Your task to perform on an android device: turn pop-ups off in chrome Image 0: 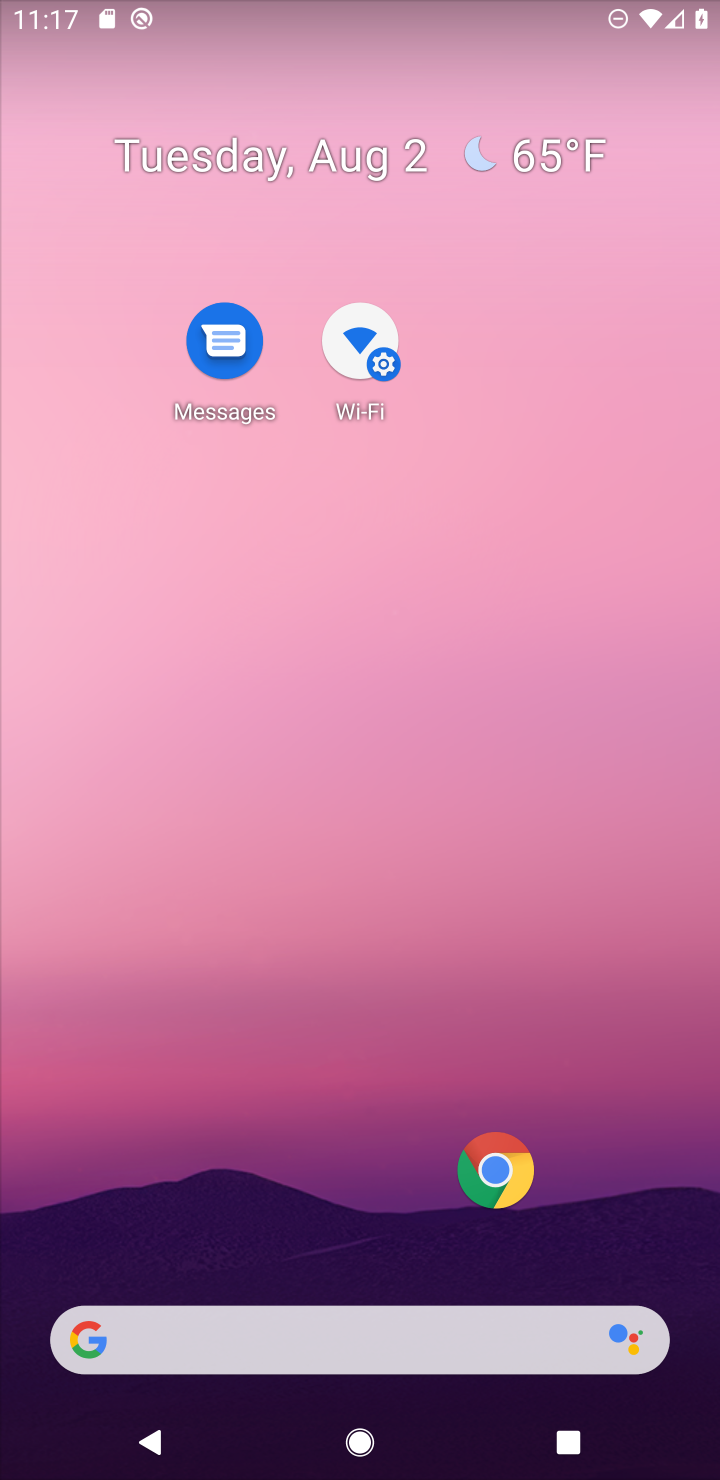
Step 0: drag from (363, 1217) to (441, 410)
Your task to perform on an android device: turn pop-ups off in chrome Image 1: 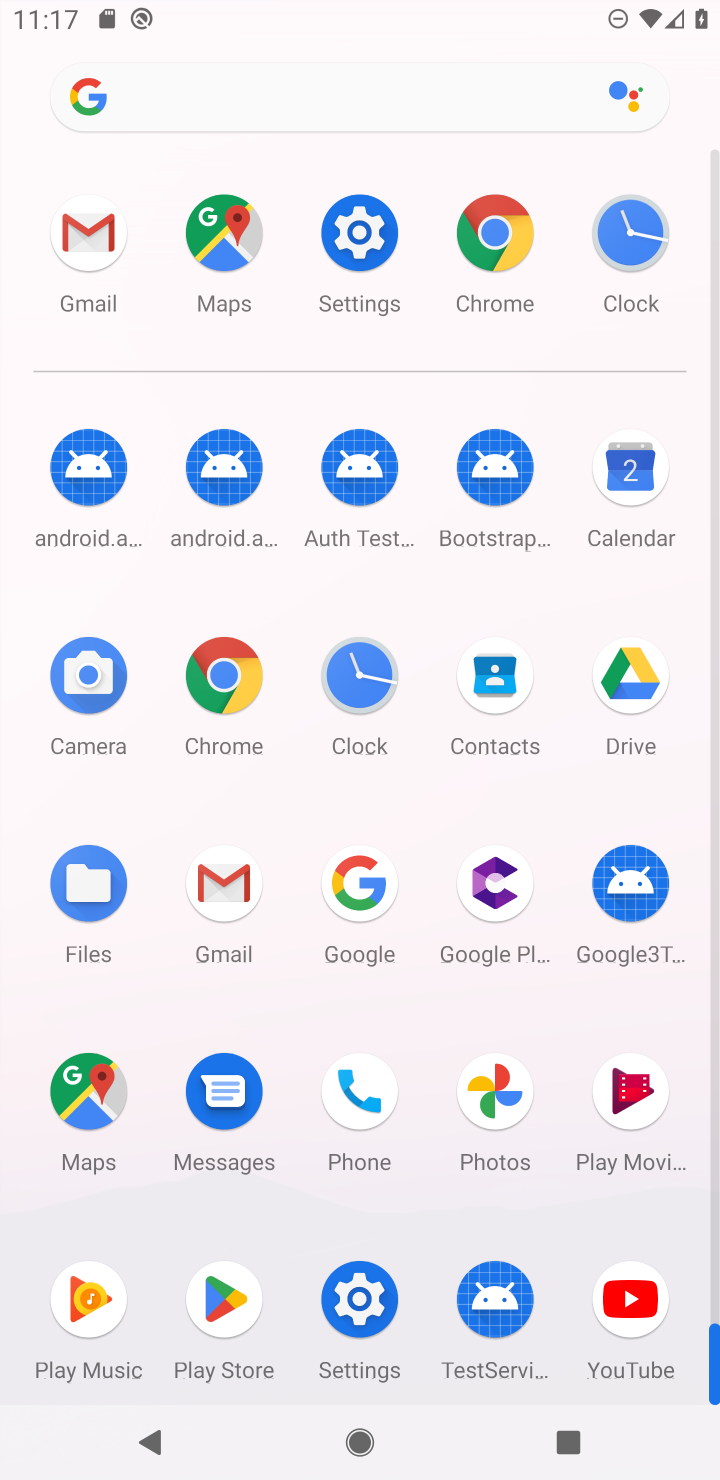
Step 1: click (207, 664)
Your task to perform on an android device: turn pop-ups off in chrome Image 2: 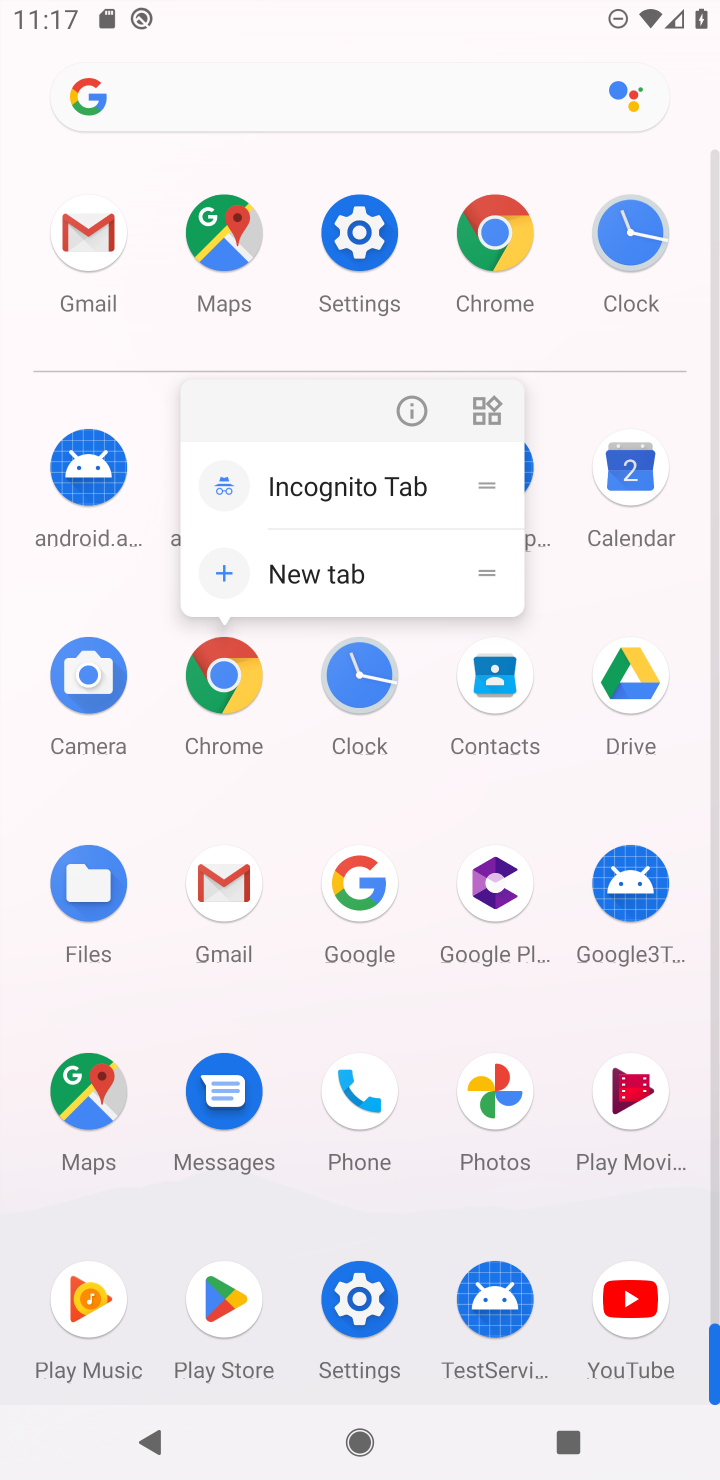
Step 2: click (413, 412)
Your task to perform on an android device: turn pop-ups off in chrome Image 3: 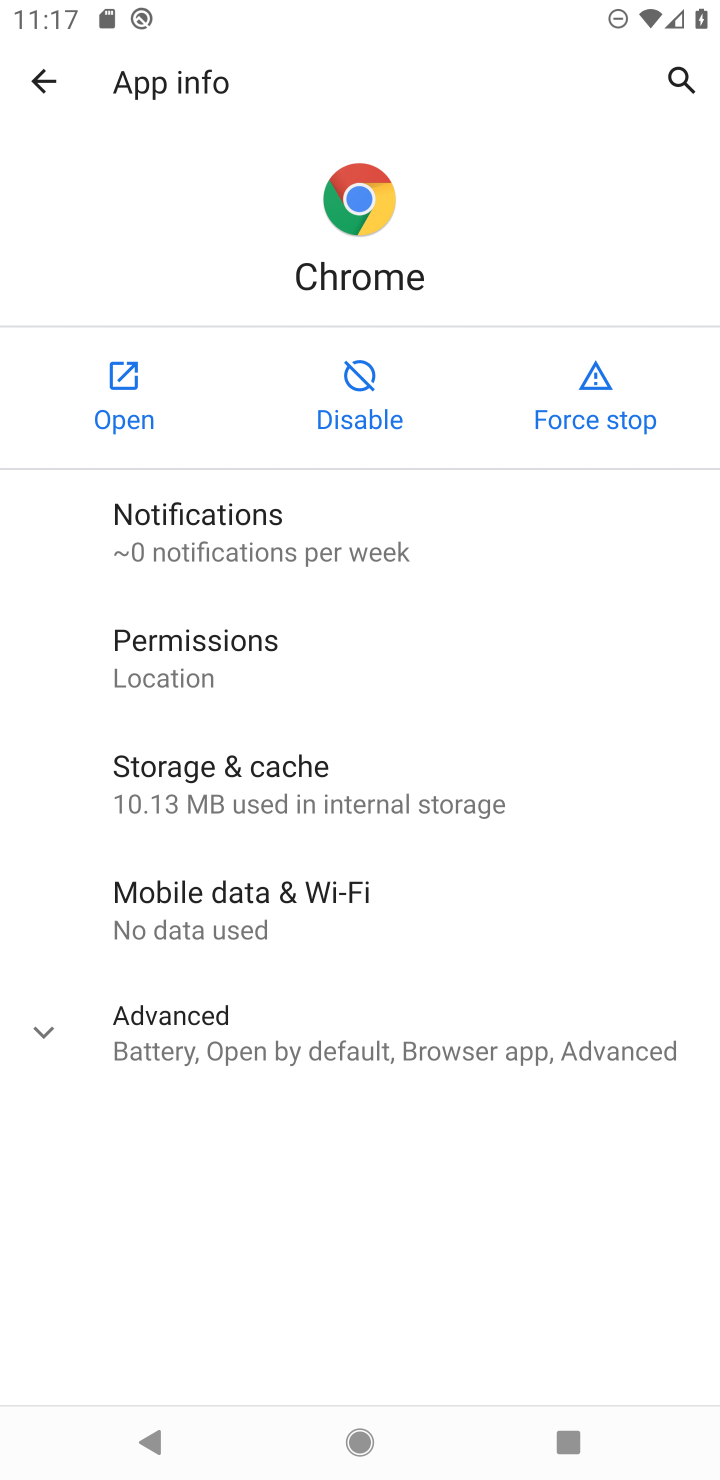
Step 3: click (132, 388)
Your task to perform on an android device: turn pop-ups off in chrome Image 4: 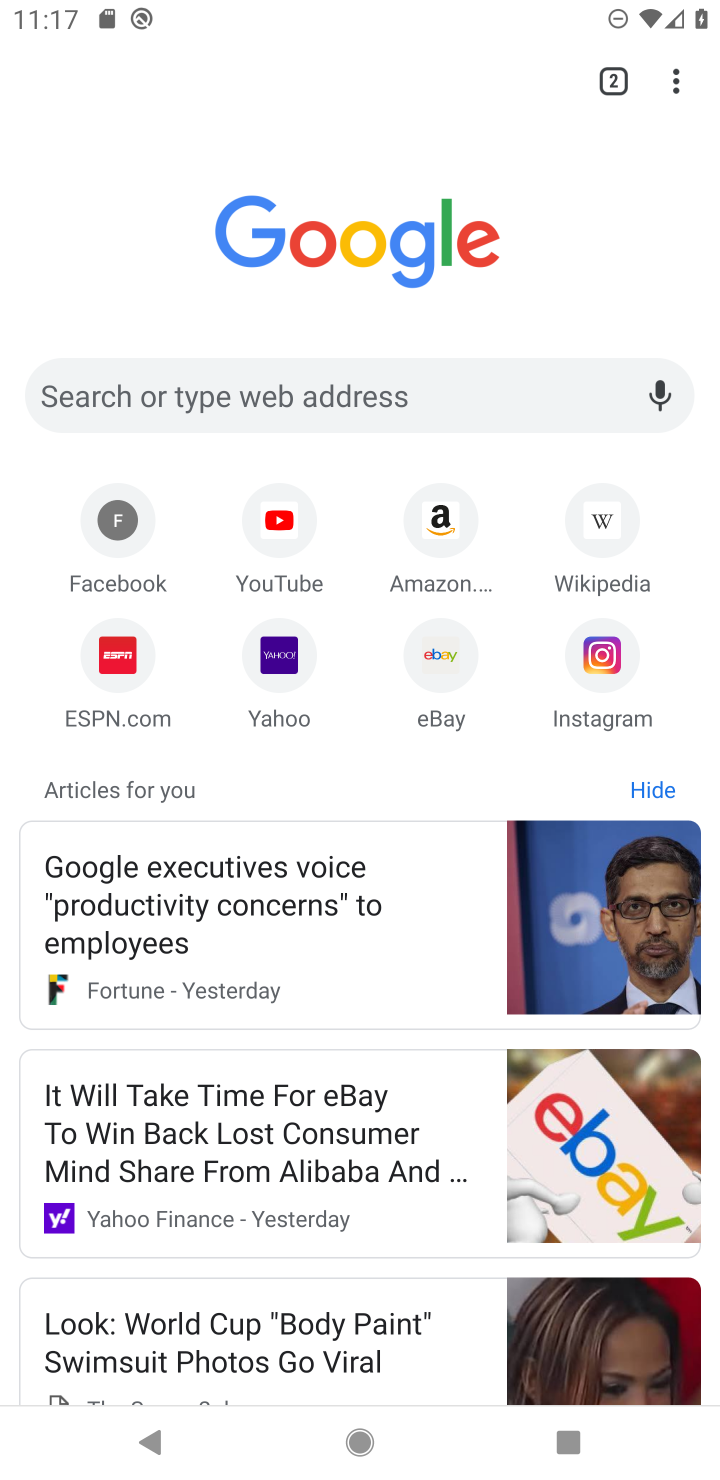
Step 4: drag from (687, 87) to (401, 766)
Your task to perform on an android device: turn pop-ups off in chrome Image 5: 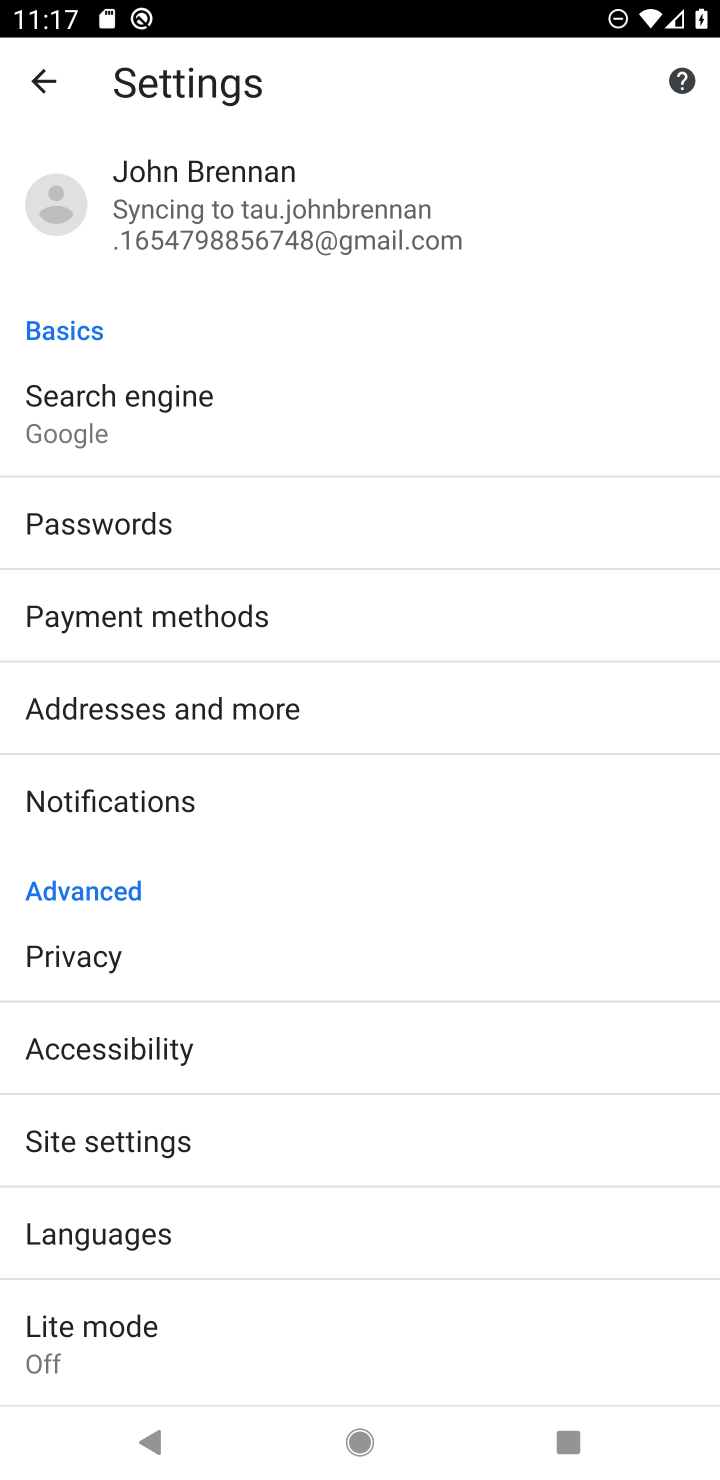
Step 5: drag from (359, 1209) to (362, 482)
Your task to perform on an android device: turn pop-ups off in chrome Image 6: 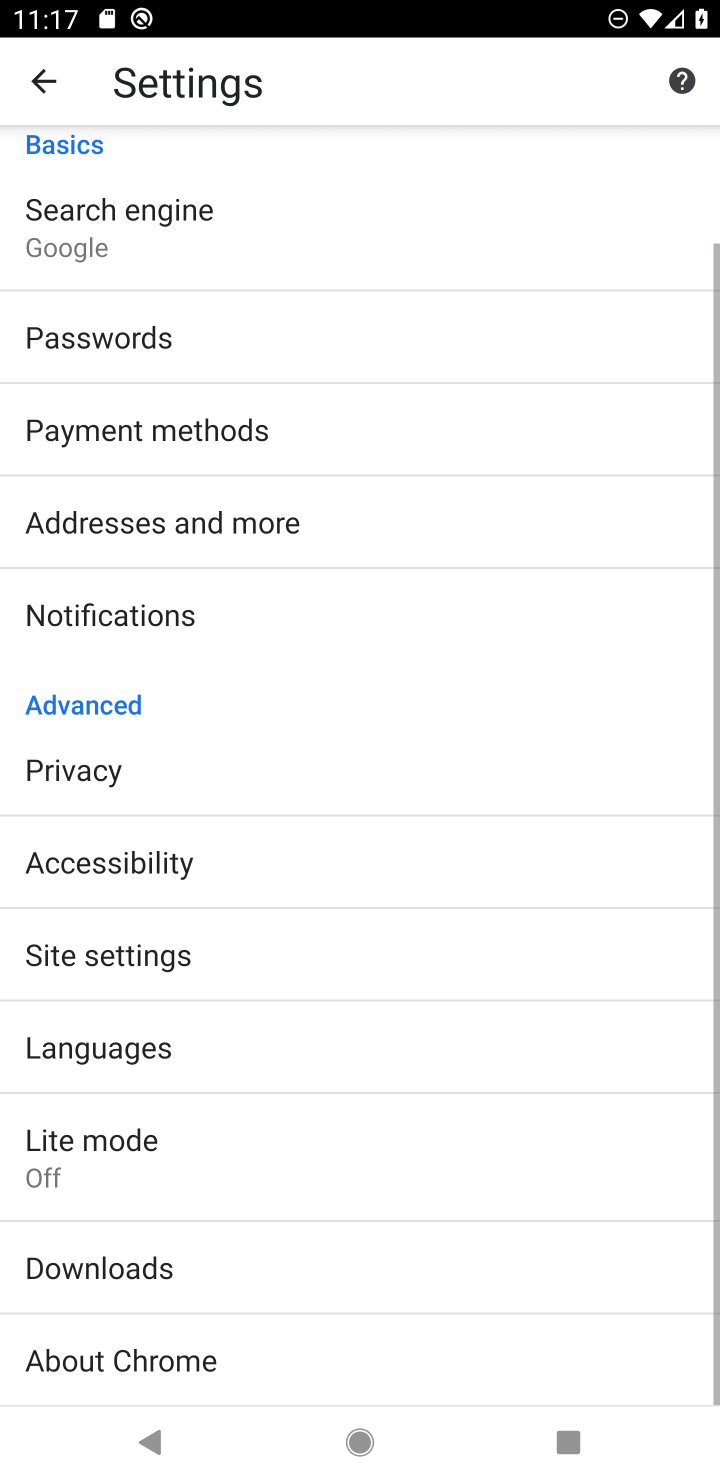
Step 6: drag from (467, 648) to (467, 975)
Your task to perform on an android device: turn pop-ups off in chrome Image 7: 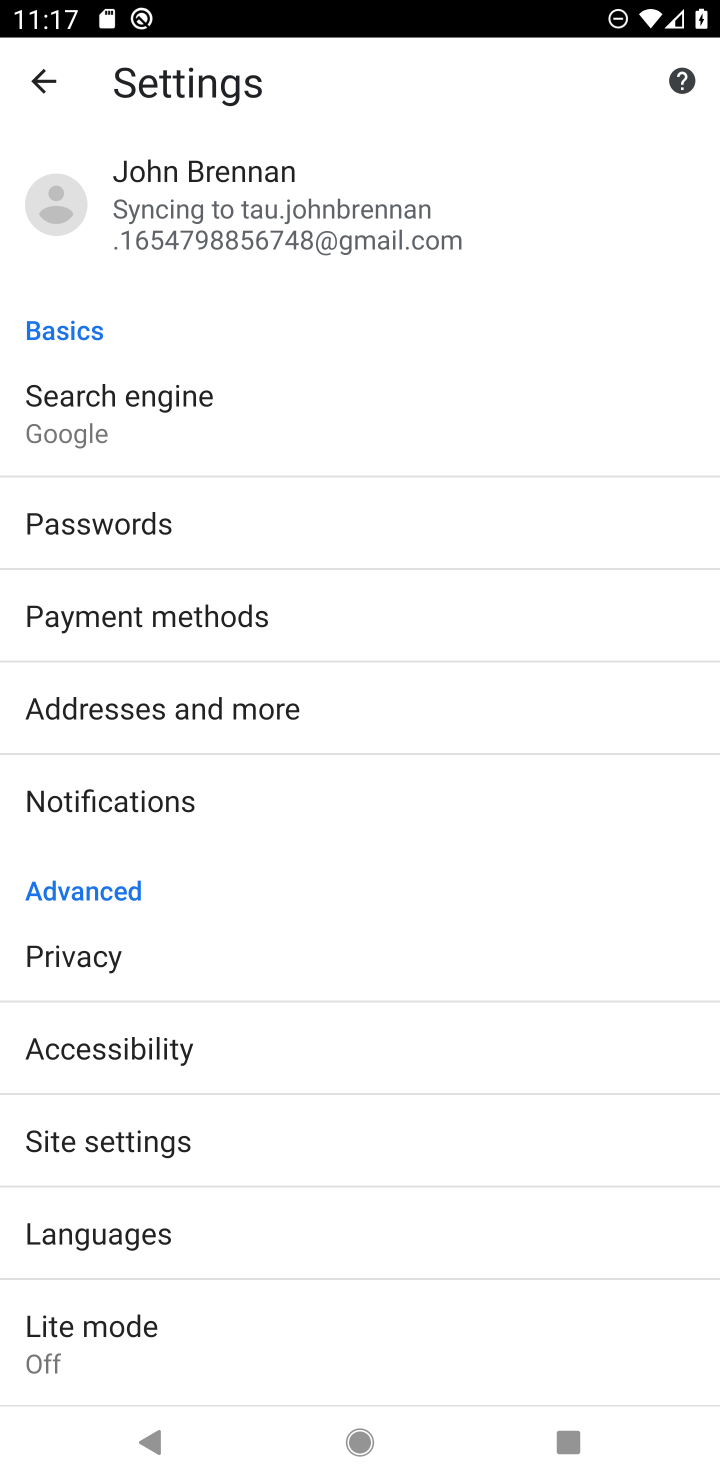
Step 7: drag from (237, 928) to (499, 240)
Your task to perform on an android device: turn pop-ups off in chrome Image 8: 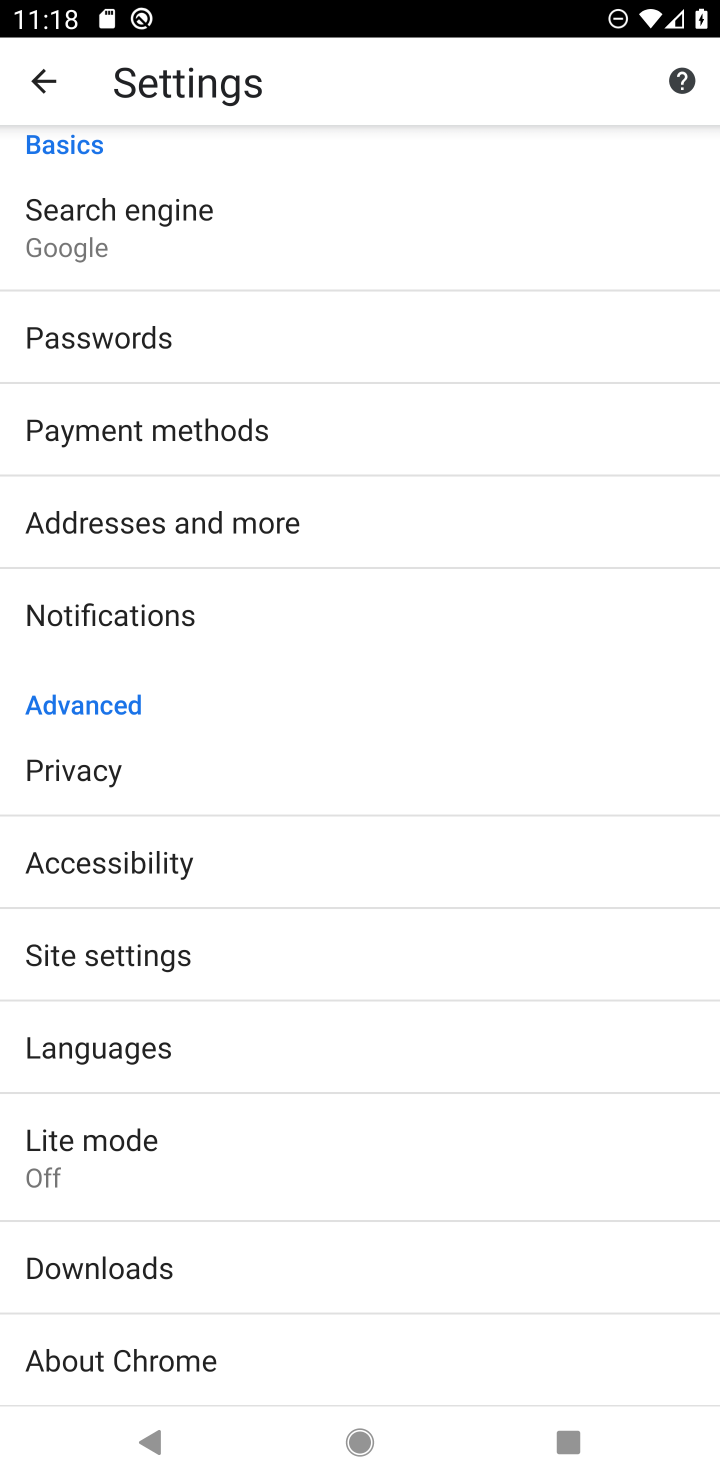
Step 8: drag from (413, 1122) to (542, 599)
Your task to perform on an android device: turn pop-ups off in chrome Image 9: 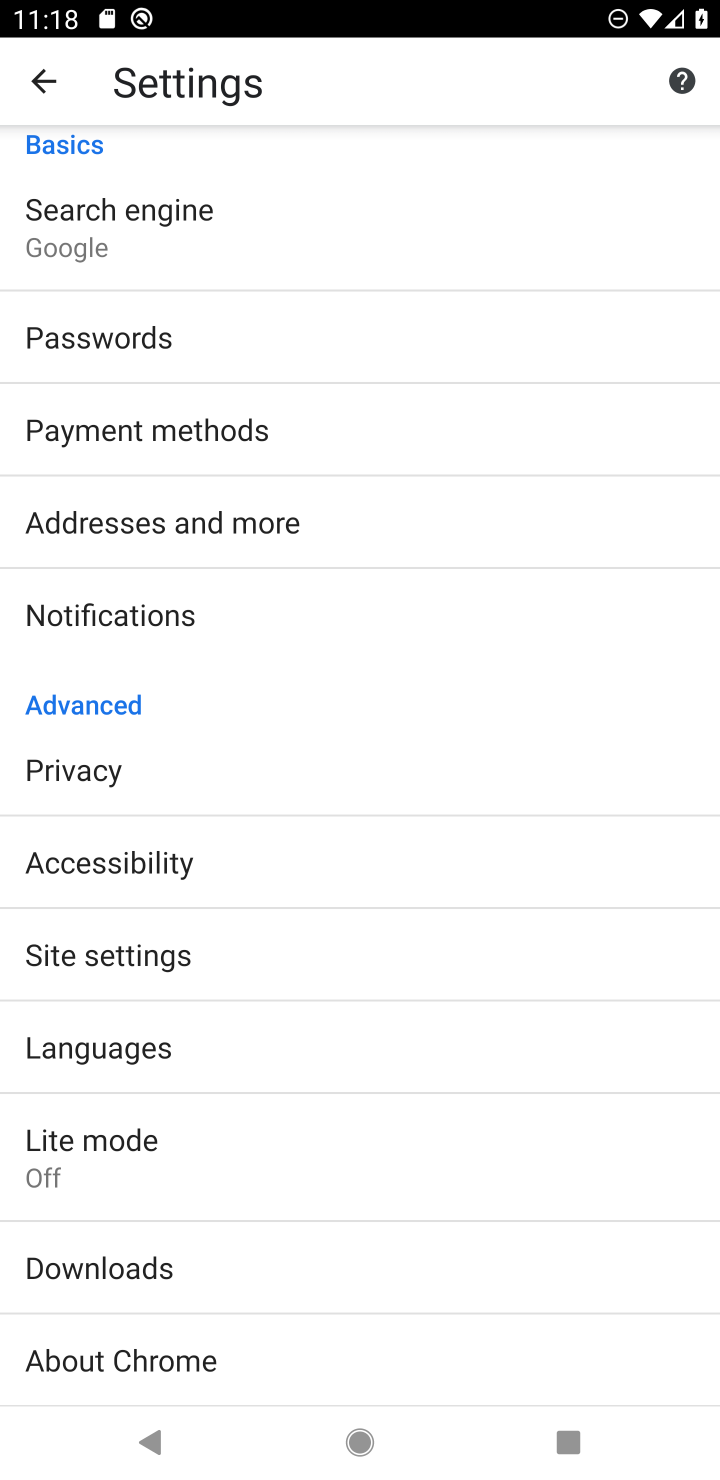
Step 9: drag from (282, 1138) to (484, 602)
Your task to perform on an android device: turn pop-ups off in chrome Image 10: 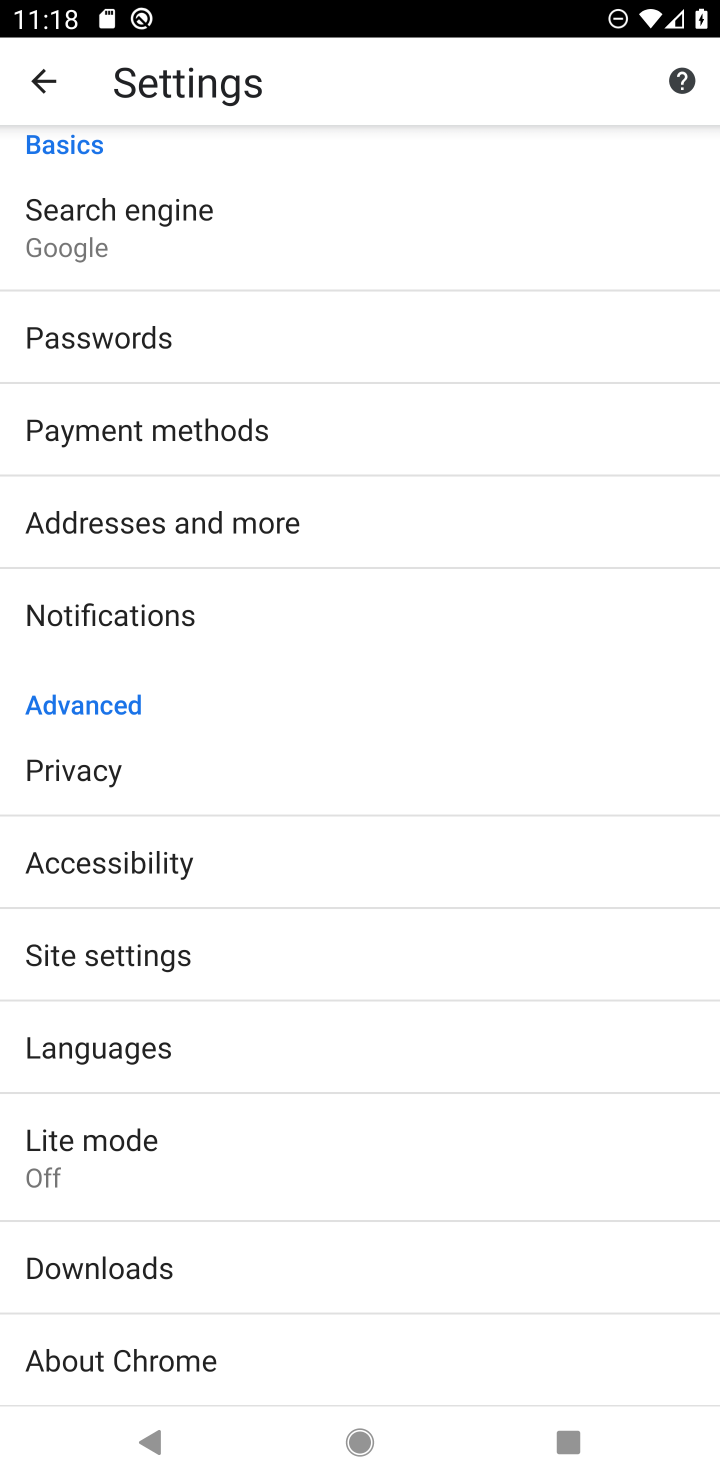
Step 10: click (165, 977)
Your task to perform on an android device: turn pop-ups off in chrome Image 11: 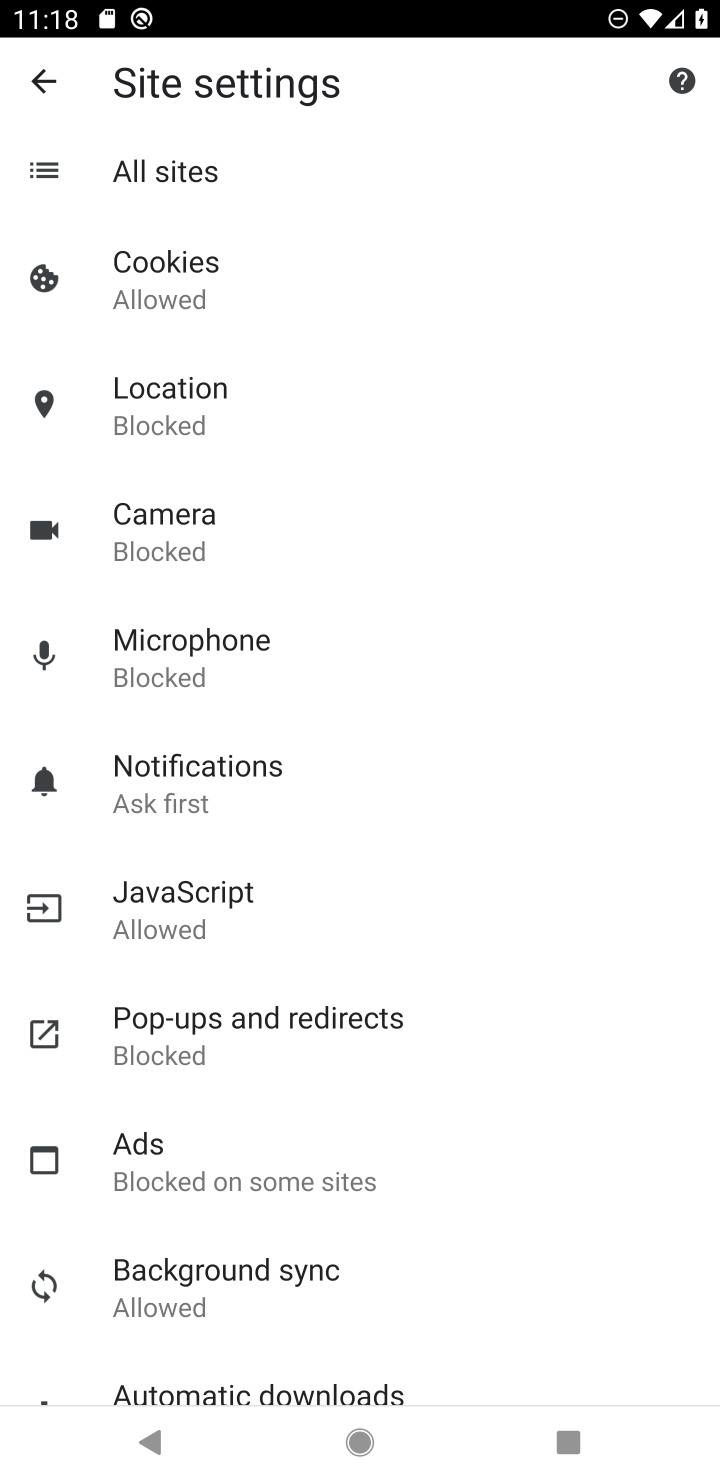
Step 11: drag from (380, 1056) to (552, 266)
Your task to perform on an android device: turn pop-ups off in chrome Image 12: 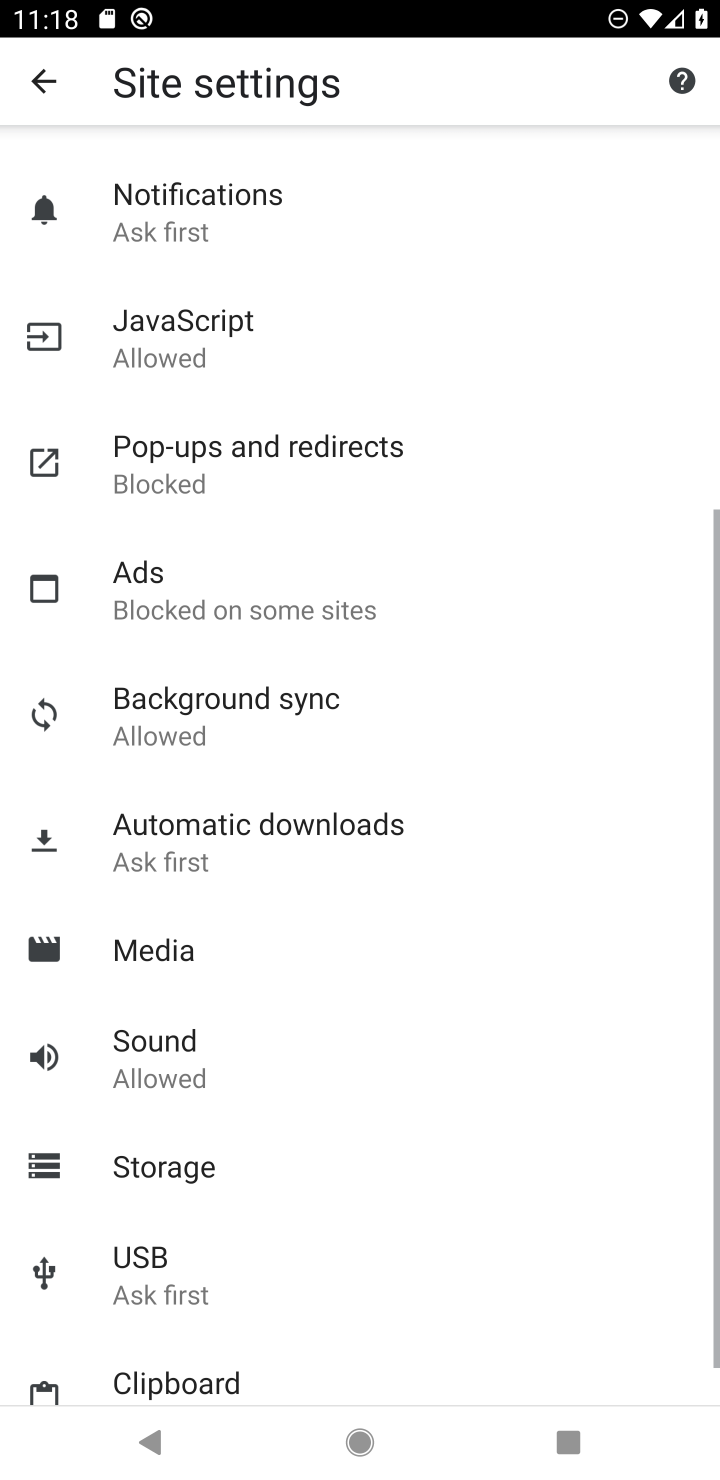
Step 12: drag from (488, 343) to (356, 1253)
Your task to perform on an android device: turn pop-ups off in chrome Image 13: 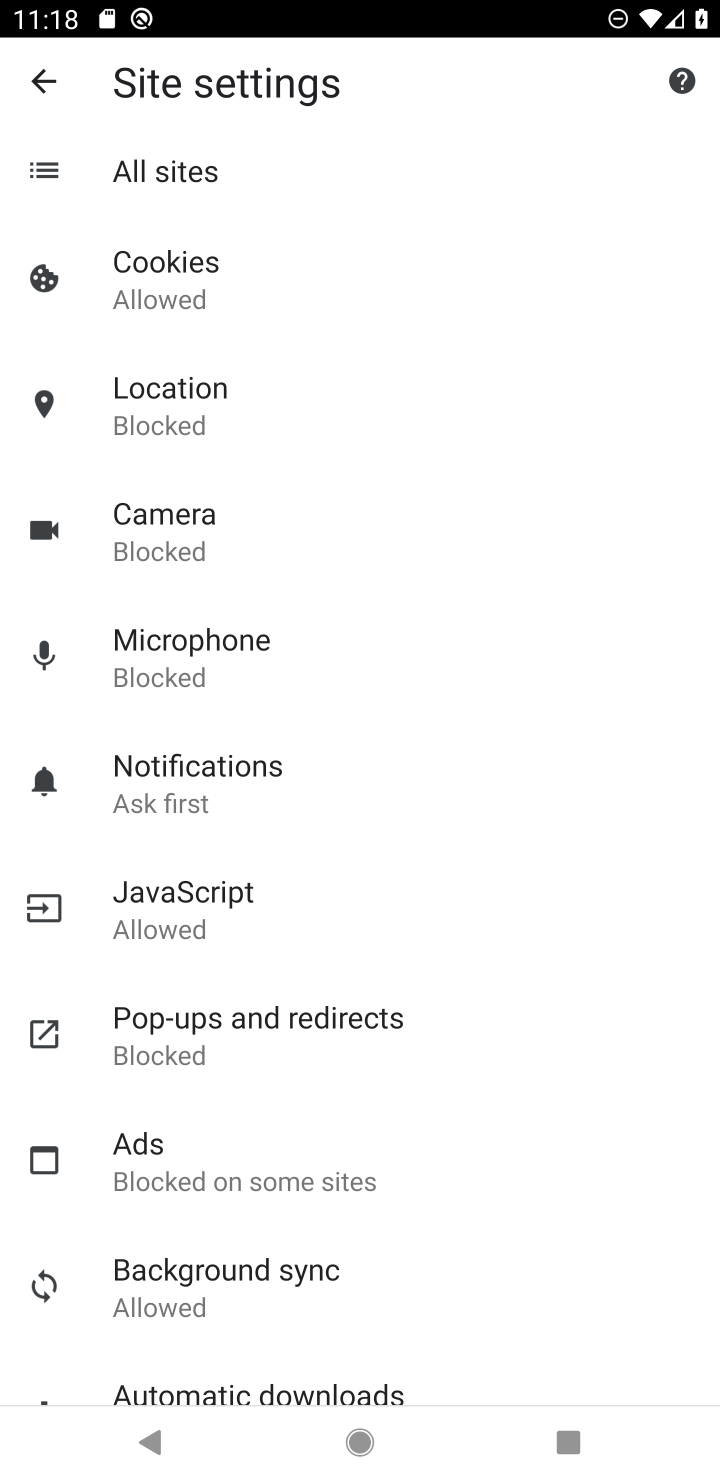
Step 13: click (228, 1048)
Your task to perform on an android device: turn pop-ups off in chrome Image 14: 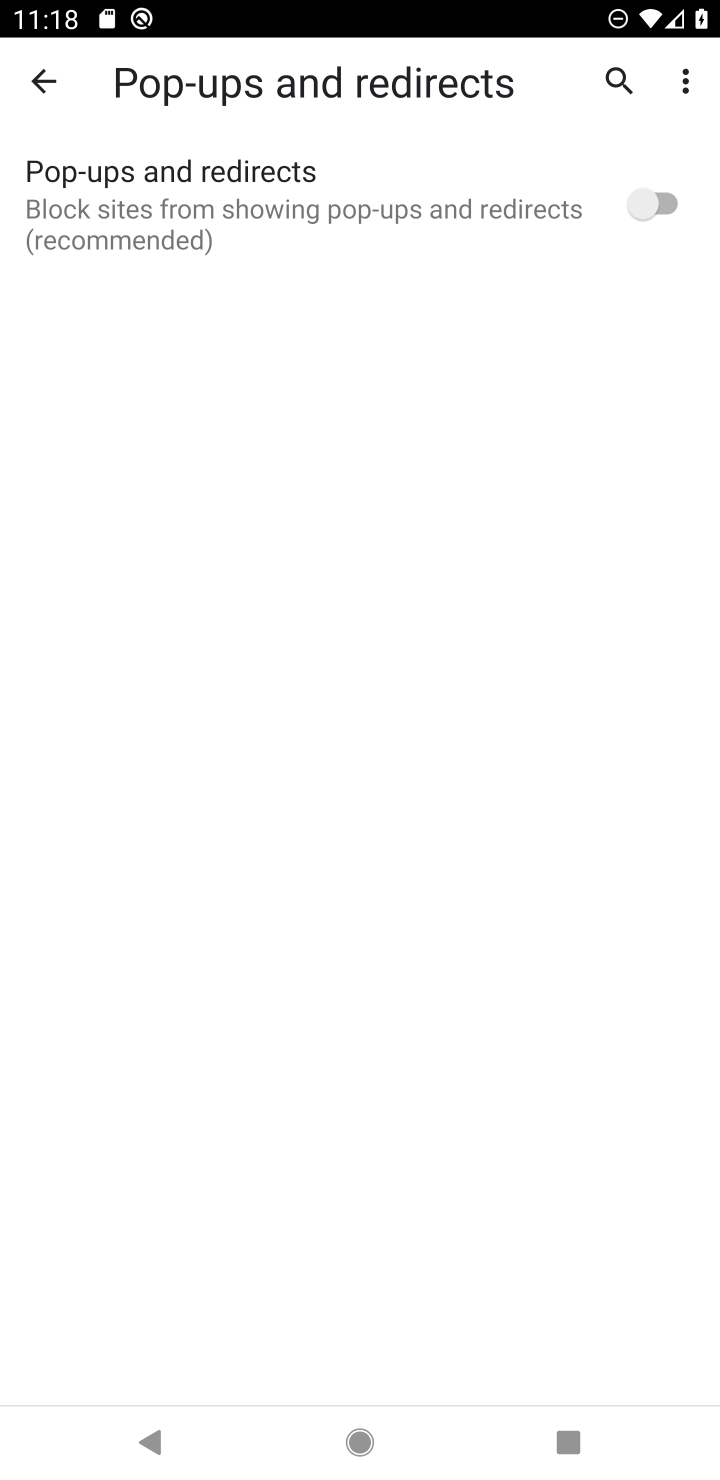
Step 14: task complete